Your task to perform on an android device: stop showing notifications on the lock screen Image 0: 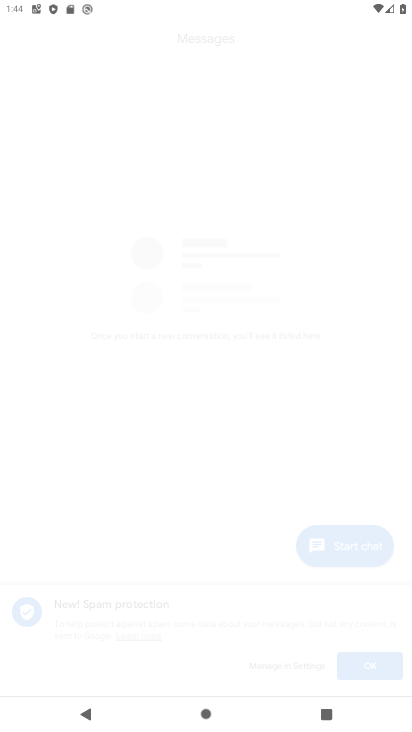
Step 0: drag from (116, 641) to (158, 143)
Your task to perform on an android device: stop showing notifications on the lock screen Image 1: 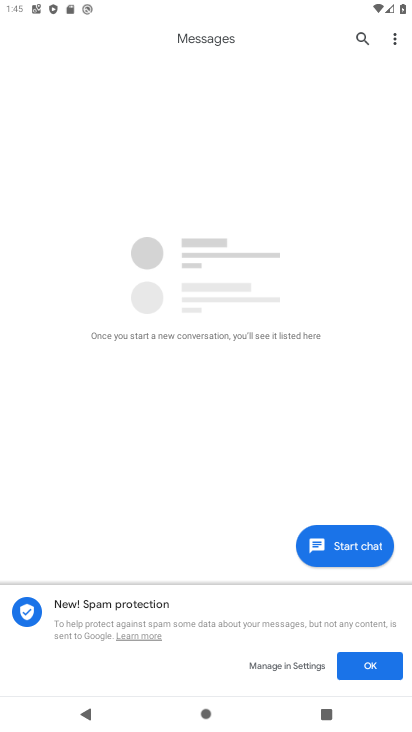
Step 1: press back button
Your task to perform on an android device: stop showing notifications on the lock screen Image 2: 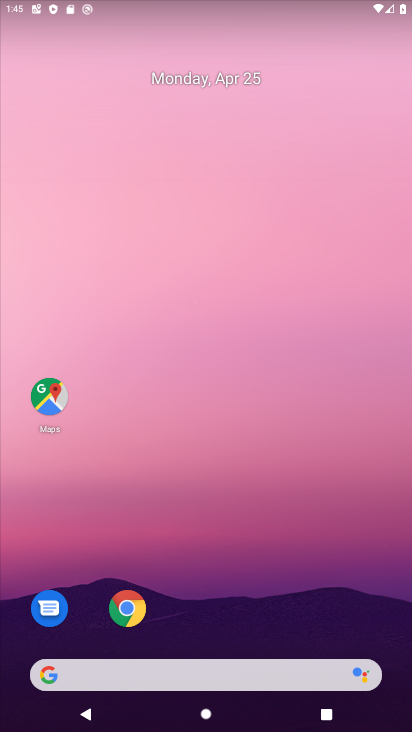
Step 2: drag from (152, 603) to (229, 85)
Your task to perform on an android device: stop showing notifications on the lock screen Image 3: 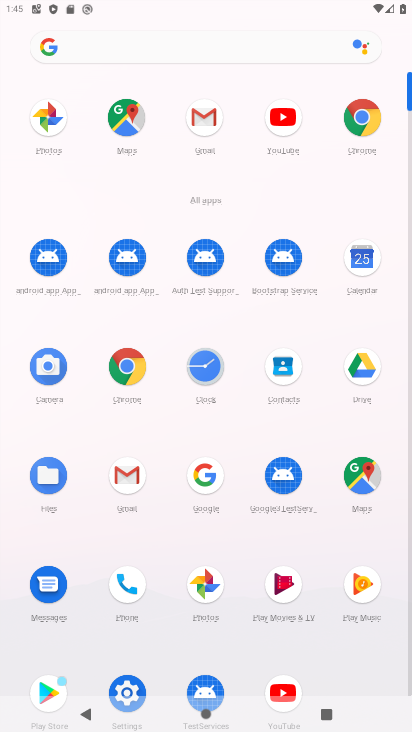
Step 3: click (133, 679)
Your task to perform on an android device: stop showing notifications on the lock screen Image 4: 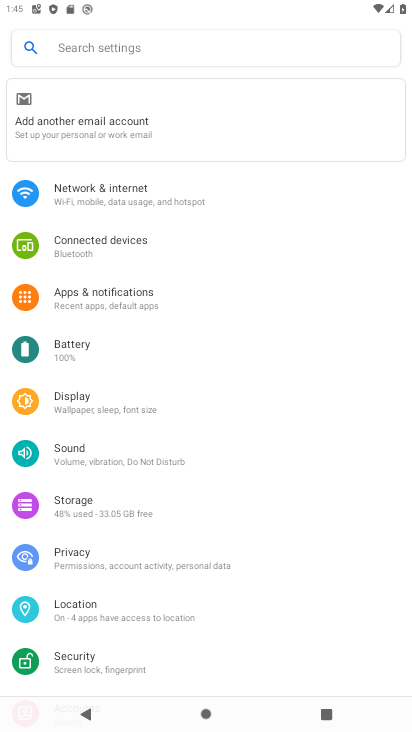
Step 4: click (140, 301)
Your task to perform on an android device: stop showing notifications on the lock screen Image 5: 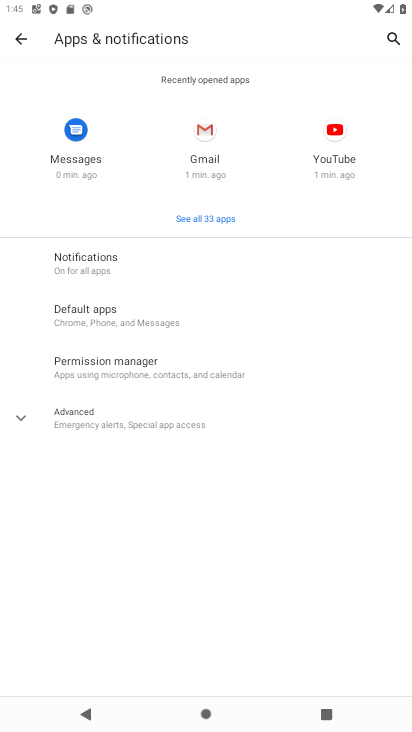
Step 5: click (109, 259)
Your task to perform on an android device: stop showing notifications on the lock screen Image 6: 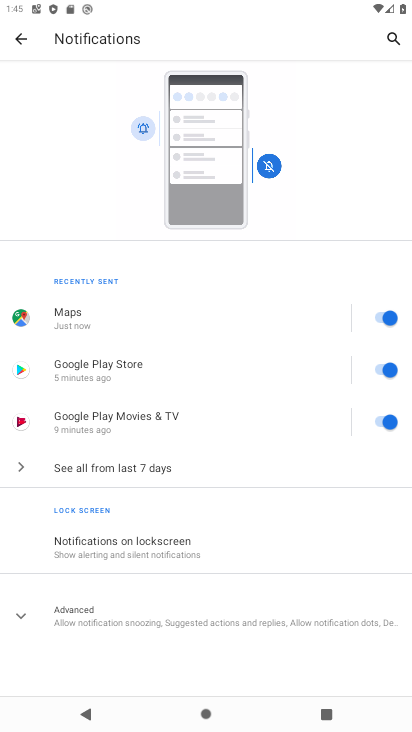
Step 6: click (131, 549)
Your task to perform on an android device: stop showing notifications on the lock screen Image 7: 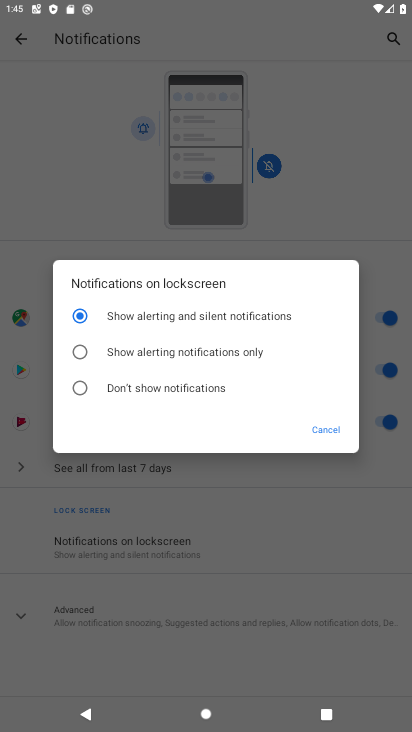
Step 7: click (178, 400)
Your task to perform on an android device: stop showing notifications on the lock screen Image 8: 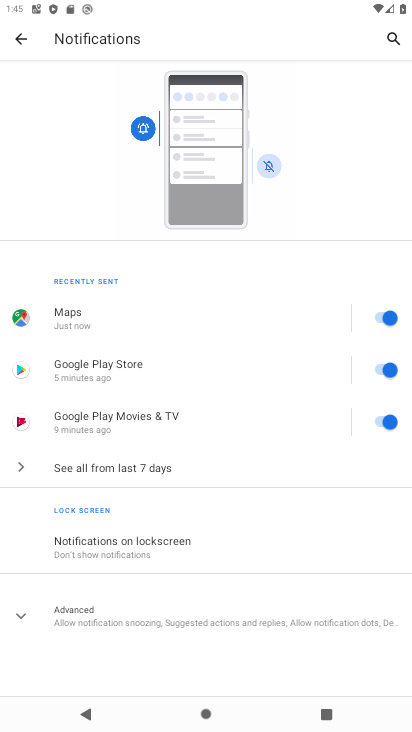
Step 8: task complete